Your task to perform on an android device: Open maps Image 0: 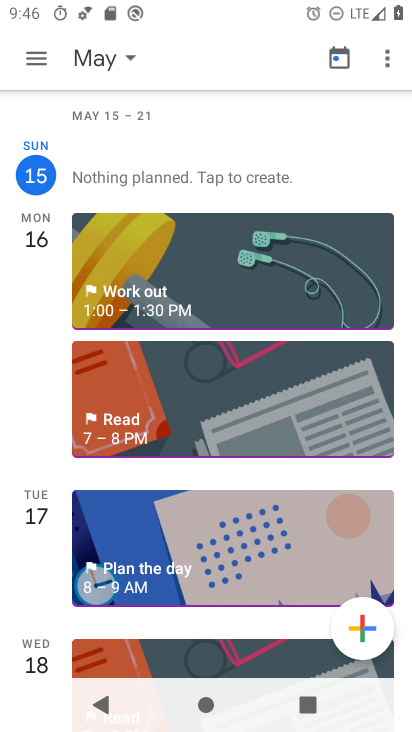
Step 0: press home button
Your task to perform on an android device: Open maps Image 1: 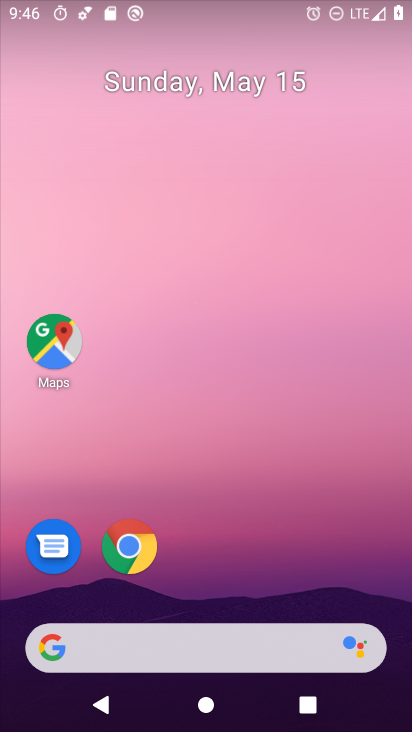
Step 1: click (54, 334)
Your task to perform on an android device: Open maps Image 2: 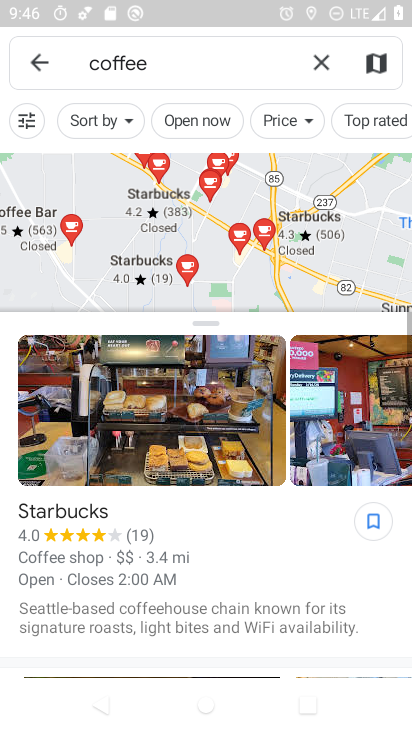
Step 2: click (42, 61)
Your task to perform on an android device: Open maps Image 3: 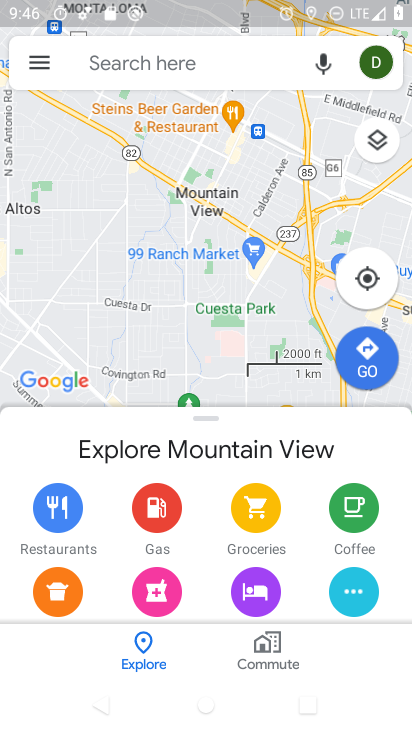
Step 3: task complete